Your task to perform on an android device: toggle show notifications on the lock screen Image 0: 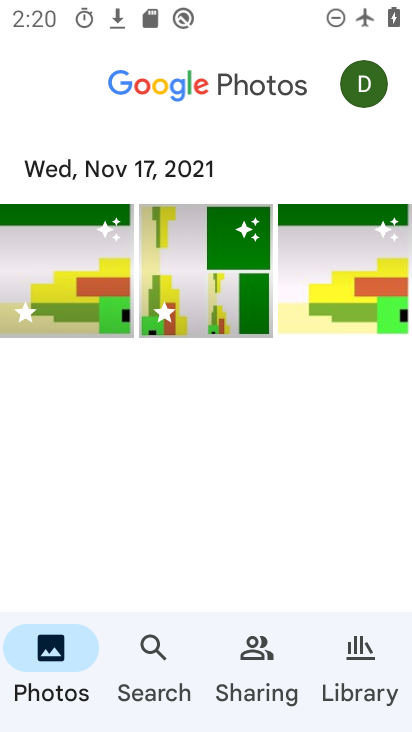
Step 0: drag from (271, 521) to (297, 234)
Your task to perform on an android device: toggle show notifications on the lock screen Image 1: 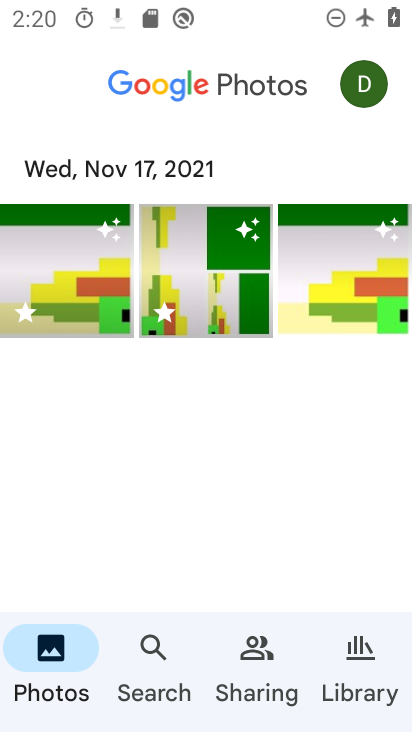
Step 1: drag from (278, 142) to (254, 576)
Your task to perform on an android device: toggle show notifications on the lock screen Image 2: 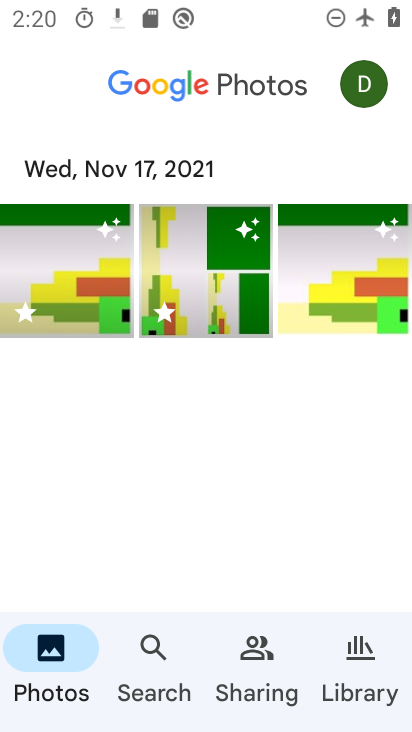
Step 2: drag from (191, 482) to (236, 235)
Your task to perform on an android device: toggle show notifications on the lock screen Image 3: 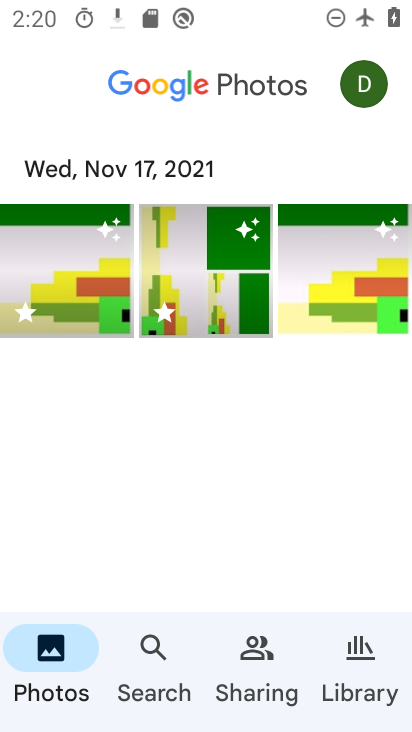
Step 3: press home button
Your task to perform on an android device: toggle show notifications on the lock screen Image 4: 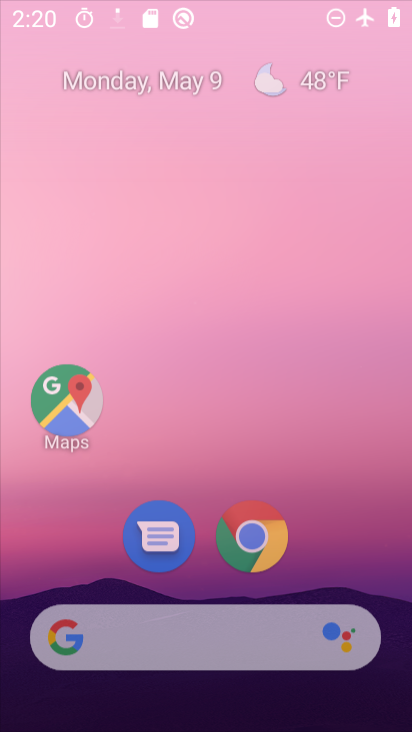
Step 4: drag from (211, 602) to (296, 27)
Your task to perform on an android device: toggle show notifications on the lock screen Image 5: 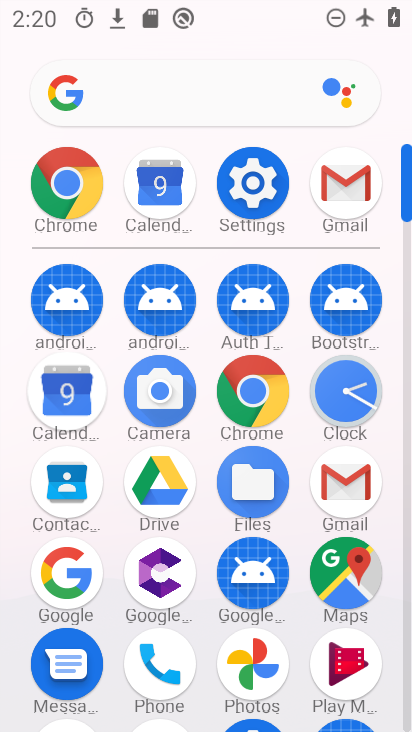
Step 5: click (240, 171)
Your task to perform on an android device: toggle show notifications on the lock screen Image 6: 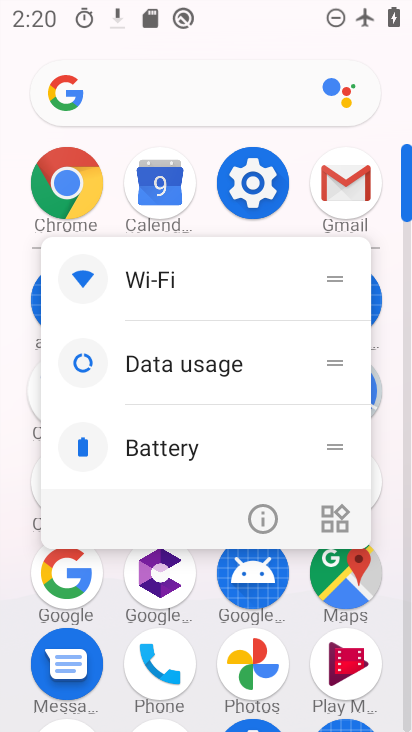
Step 6: click (257, 509)
Your task to perform on an android device: toggle show notifications on the lock screen Image 7: 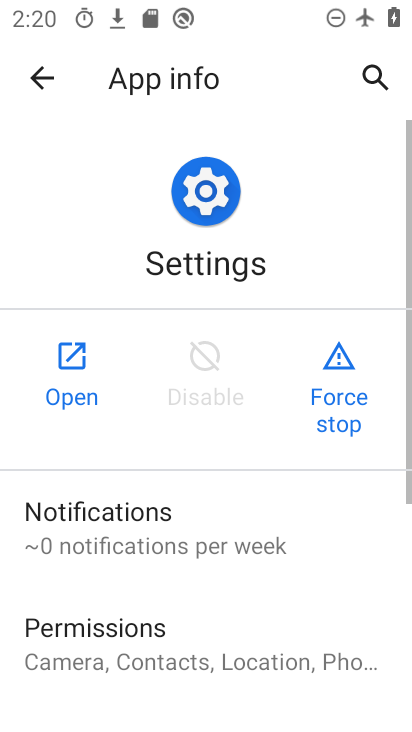
Step 7: click (83, 384)
Your task to perform on an android device: toggle show notifications on the lock screen Image 8: 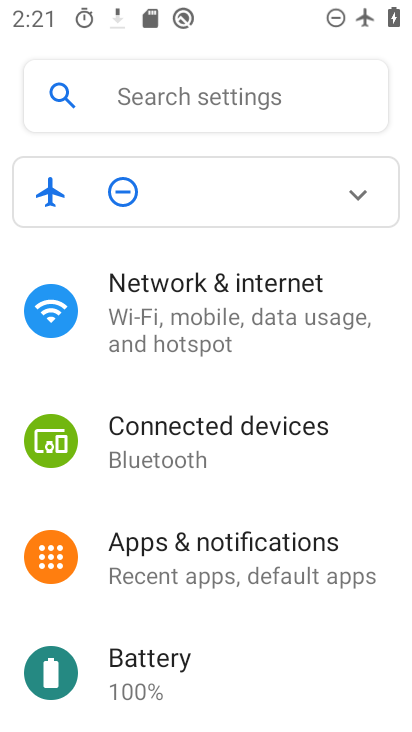
Step 8: click (241, 561)
Your task to perform on an android device: toggle show notifications on the lock screen Image 9: 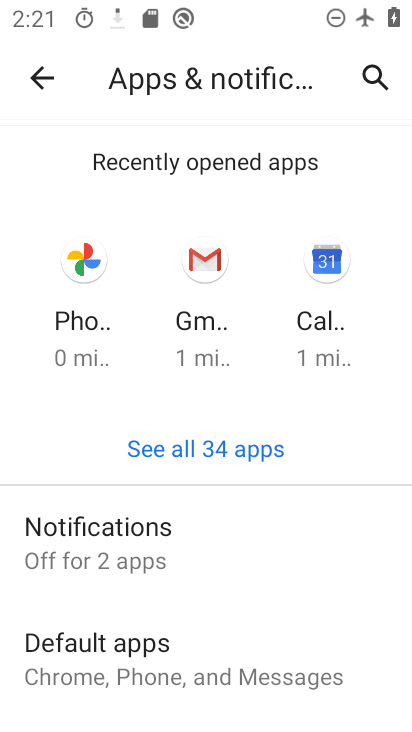
Step 9: drag from (148, 614) to (284, 118)
Your task to perform on an android device: toggle show notifications on the lock screen Image 10: 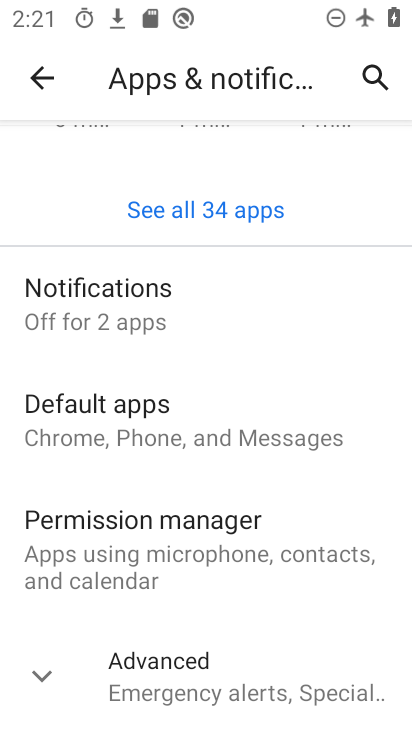
Step 10: click (170, 387)
Your task to perform on an android device: toggle show notifications on the lock screen Image 11: 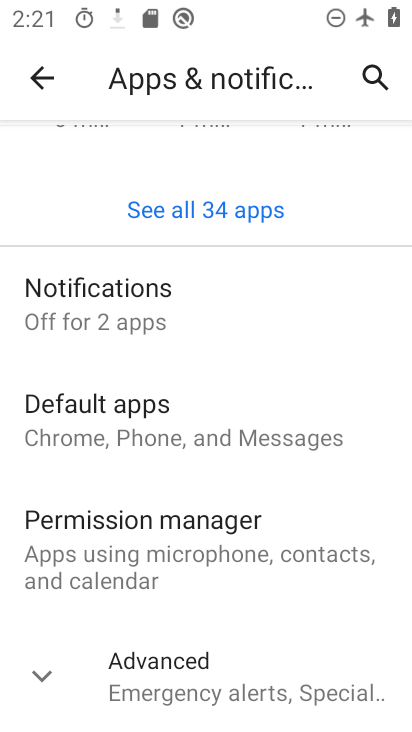
Step 11: click (170, 387)
Your task to perform on an android device: toggle show notifications on the lock screen Image 12: 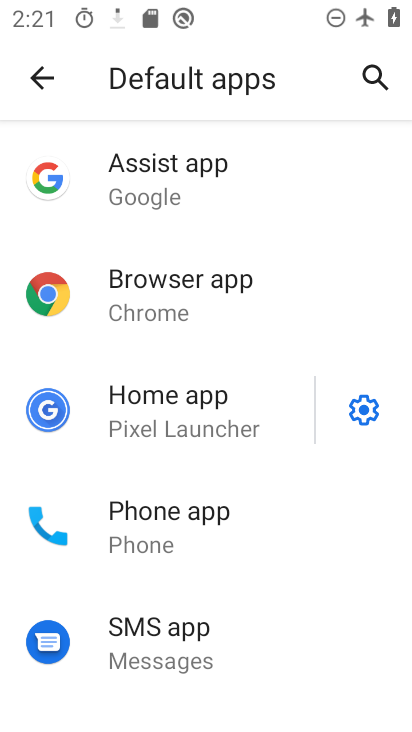
Step 12: click (23, 77)
Your task to perform on an android device: toggle show notifications on the lock screen Image 13: 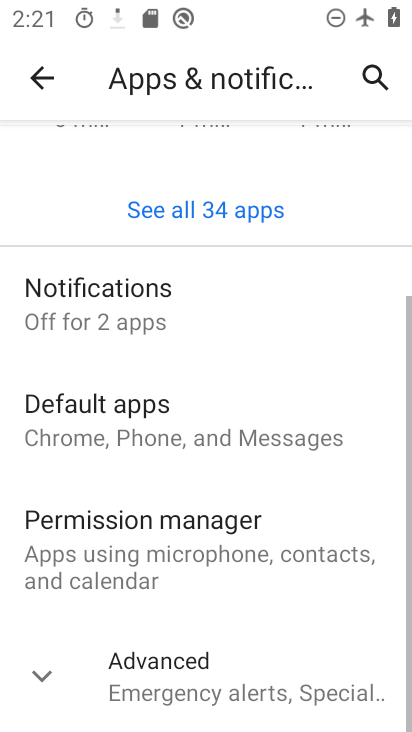
Step 13: click (163, 297)
Your task to perform on an android device: toggle show notifications on the lock screen Image 14: 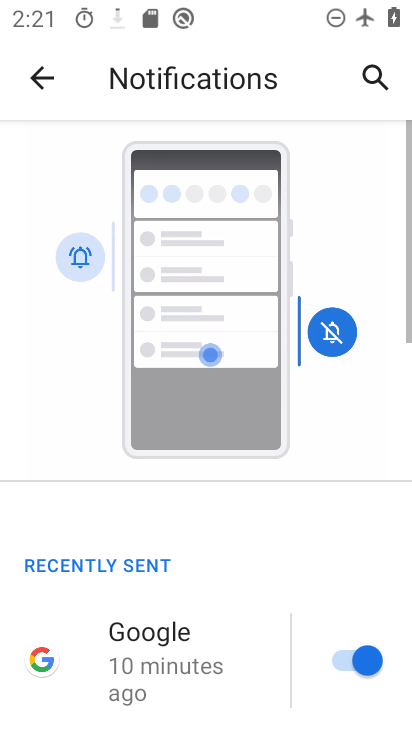
Step 14: drag from (227, 592) to (280, 103)
Your task to perform on an android device: toggle show notifications on the lock screen Image 15: 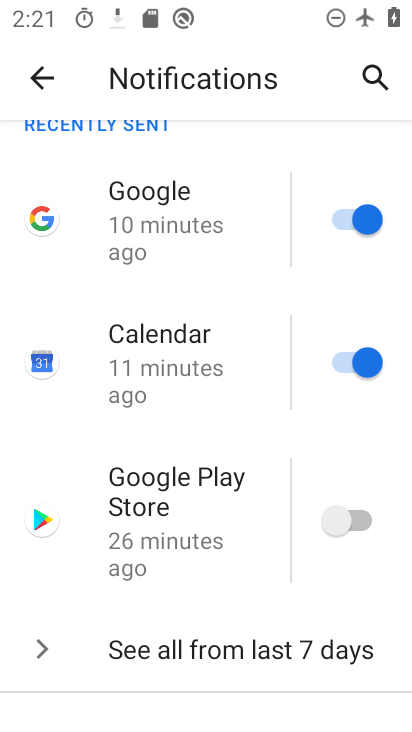
Step 15: drag from (238, 546) to (258, 84)
Your task to perform on an android device: toggle show notifications on the lock screen Image 16: 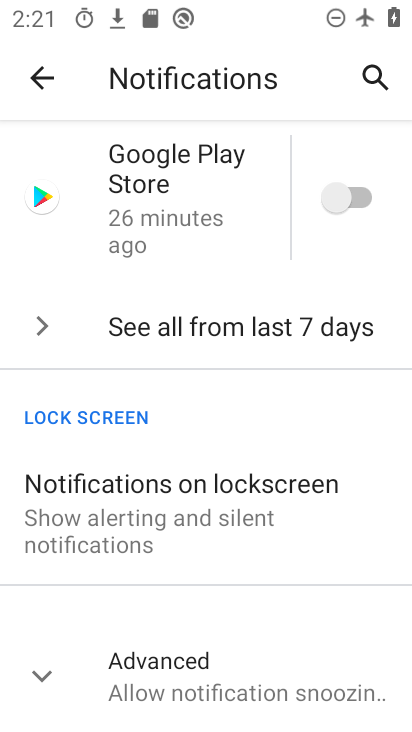
Step 16: click (174, 503)
Your task to perform on an android device: toggle show notifications on the lock screen Image 17: 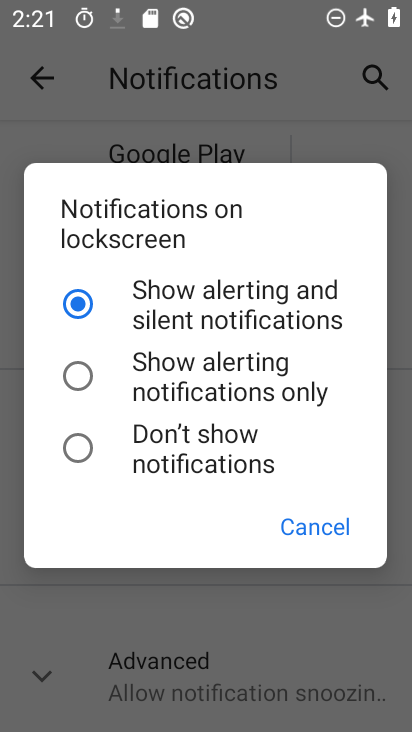
Step 17: click (150, 382)
Your task to perform on an android device: toggle show notifications on the lock screen Image 18: 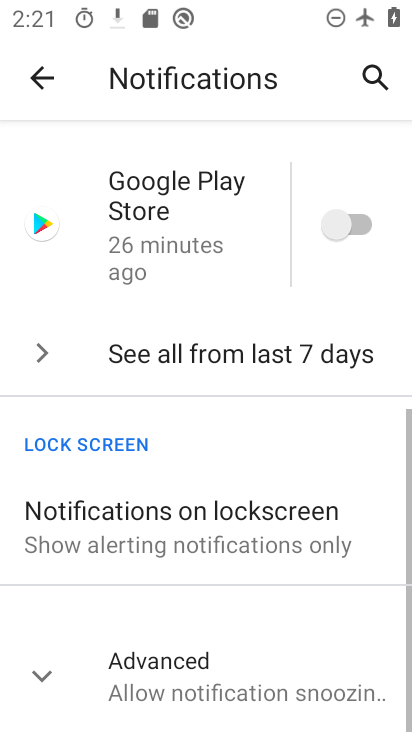
Step 18: task complete